Your task to perform on an android device: empty trash in the gmail app Image 0: 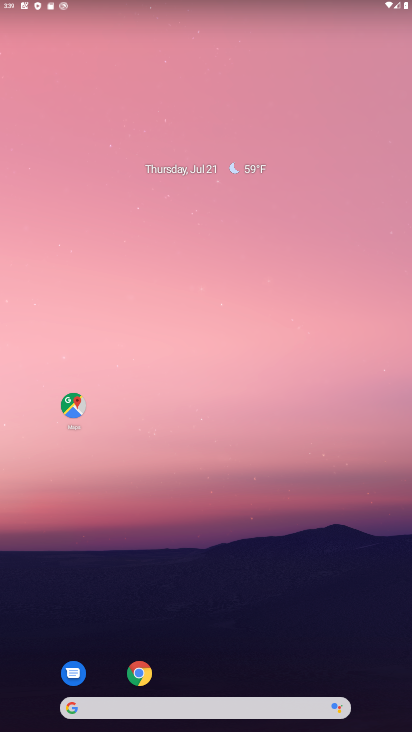
Step 0: drag from (369, 673) to (328, 159)
Your task to perform on an android device: empty trash in the gmail app Image 1: 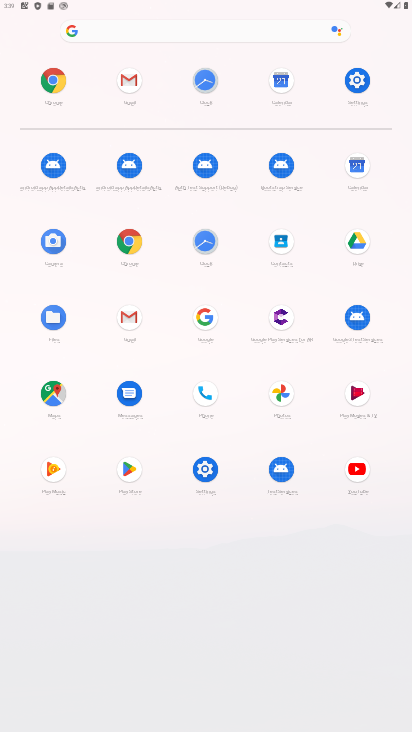
Step 1: click (127, 319)
Your task to perform on an android device: empty trash in the gmail app Image 2: 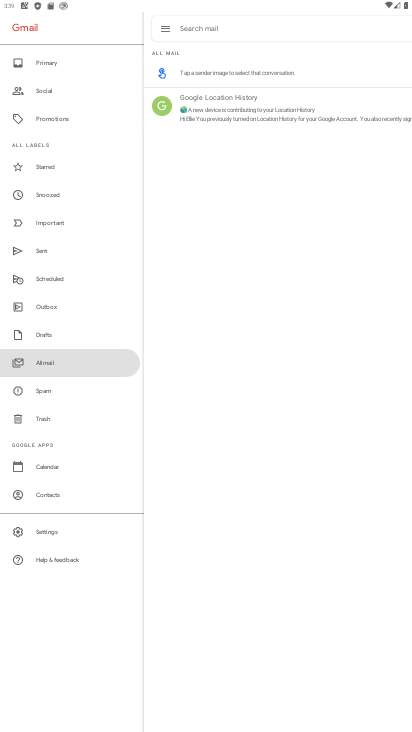
Step 2: click (48, 418)
Your task to perform on an android device: empty trash in the gmail app Image 3: 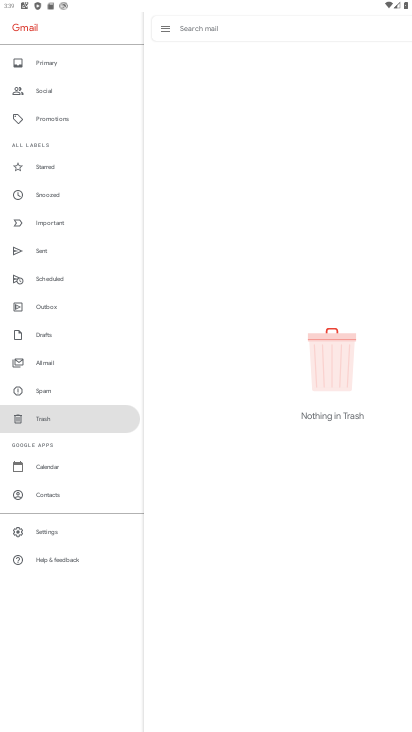
Step 3: task complete